Your task to perform on an android device: check out phone information Image 0: 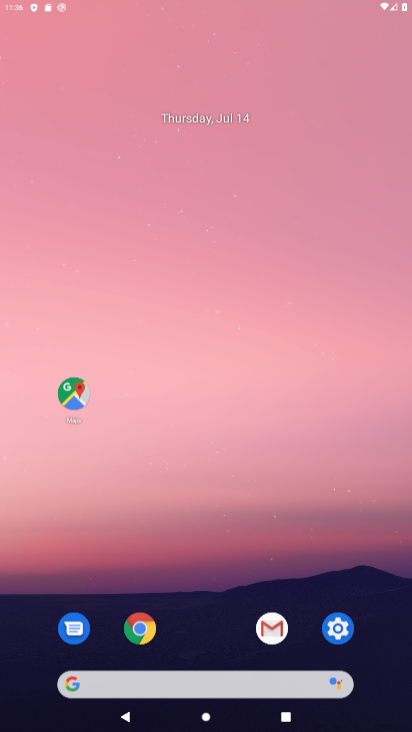
Step 0: click (164, 679)
Your task to perform on an android device: check out phone information Image 1: 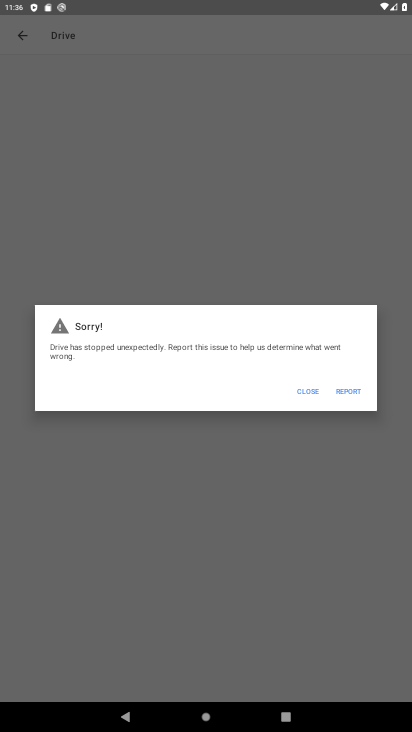
Step 1: press home button
Your task to perform on an android device: check out phone information Image 2: 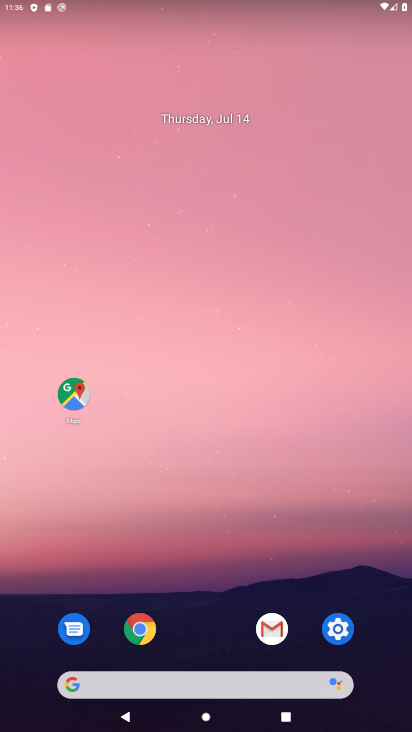
Step 2: click (334, 630)
Your task to perform on an android device: check out phone information Image 3: 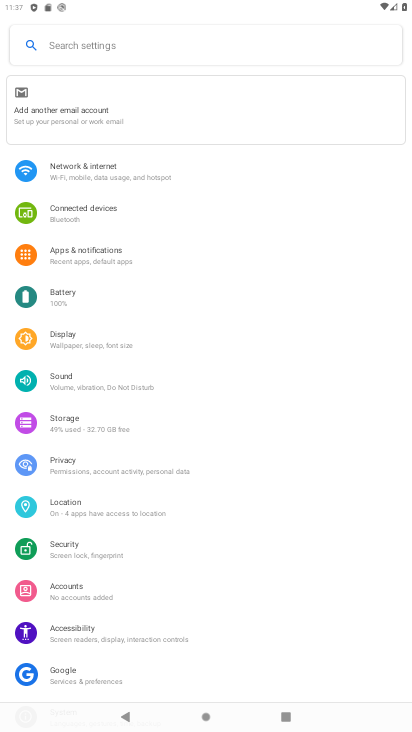
Step 3: click (137, 36)
Your task to perform on an android device: check out phone information Image 4: 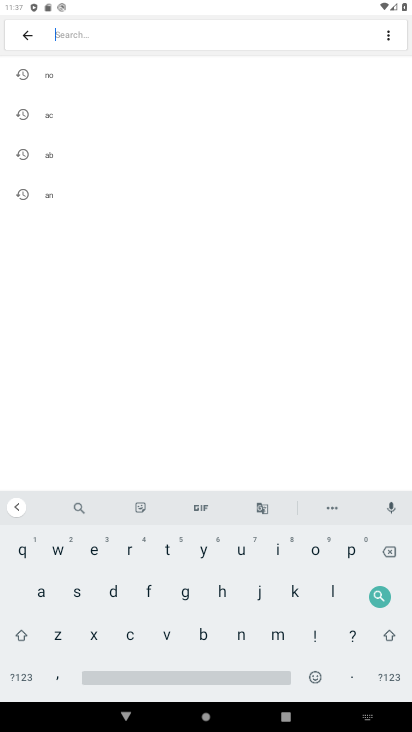
Step 4: click (38, 591)
Your task to perform on an android device: check out phone information Image 5: 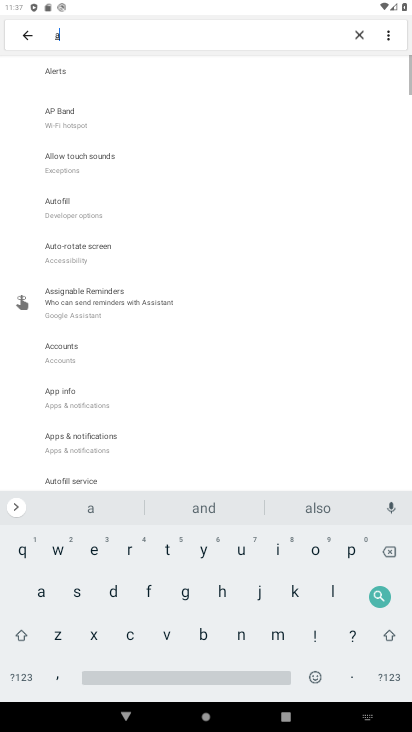
Step 5: click (205, 642)
Your task to perform on an android device: check out phone information Image 6: 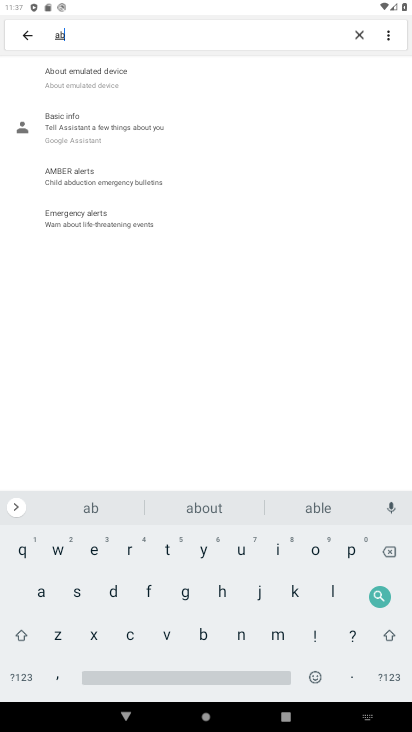
Step 6: click (90, 75)
Your task to perform on an android device: check out phone information Image 7: 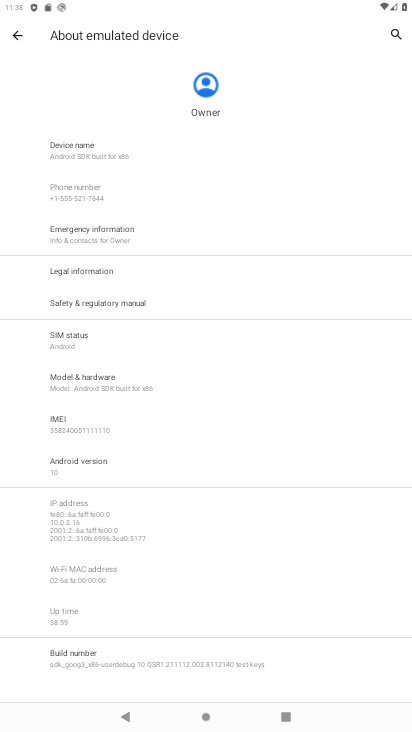
Step 7: task complete